Your task to perform on an android device: turn on wifi Image 0: 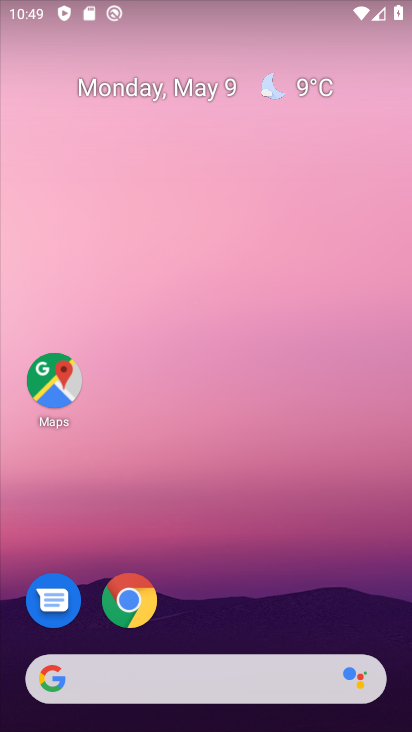
Step 0: drag from (377, 583) to (362, 118)
Your task to perform on an android device: turn on wifi Image 1: 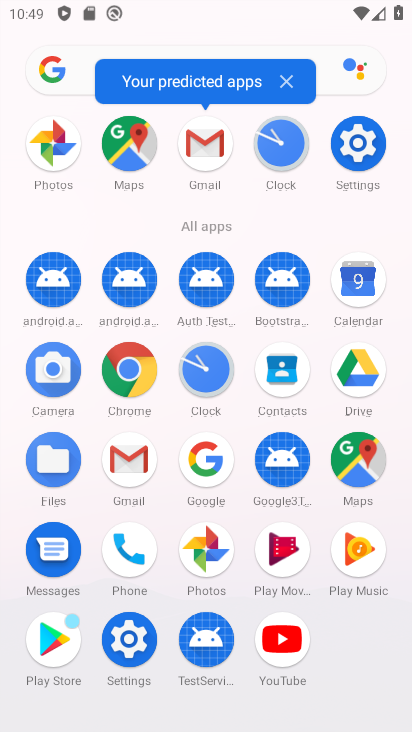
Step 1: click (357, 159)
Your task to perform on an android device: turn on wifi Image 2: 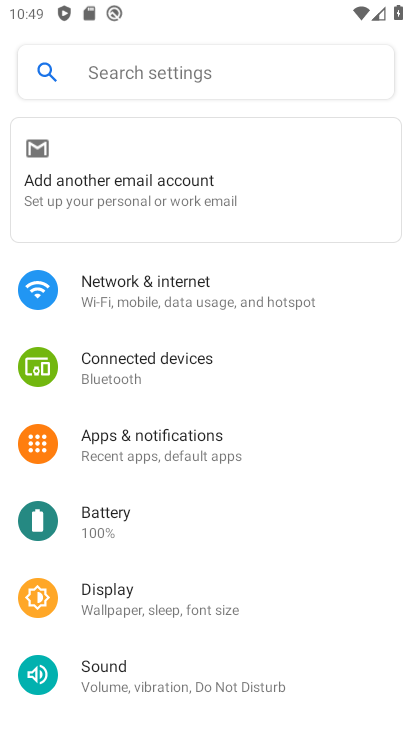
Step 2: click (157, 296)
Your task to perform on an android device: turn on wifi Image 3: 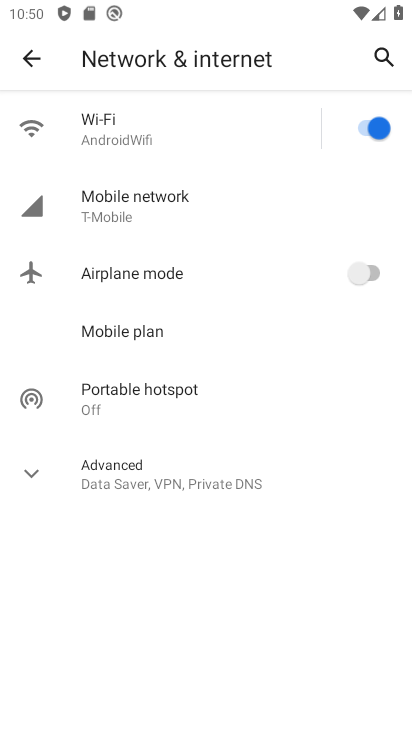
Step 3: task complete